Your task to perform on an android device: open the mobile data screen to see how much data has been used Image 0: 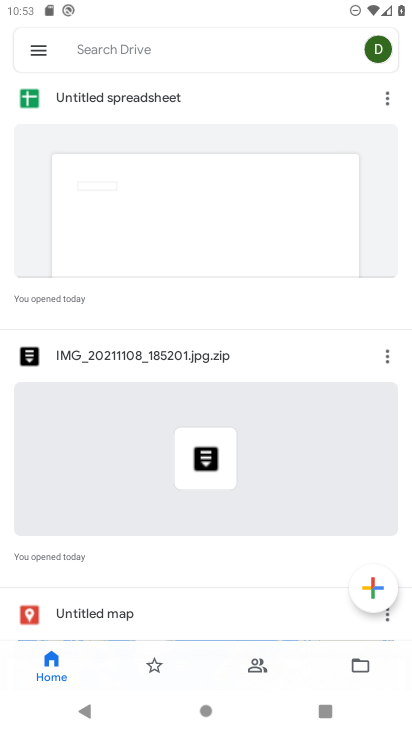
Step 0: press home button
Your task to perform on an android device: open the mobile data screen to see how much data has been used Image 1: 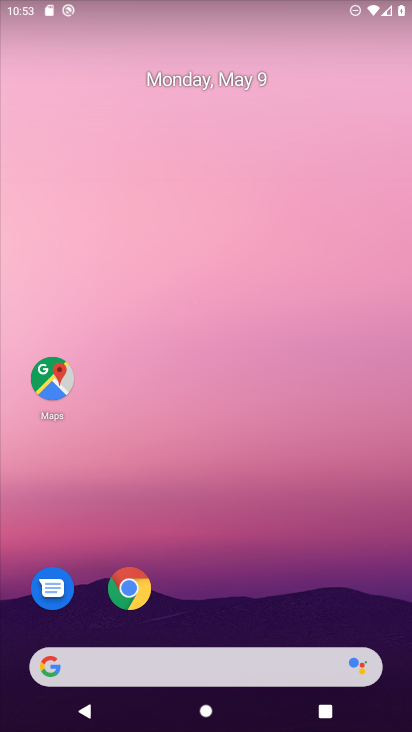
Step 1: drag from (270, 579) to (283, 31)
Your task to perform on an android device: open the mobile data screen to see how much data has been used Image 2: 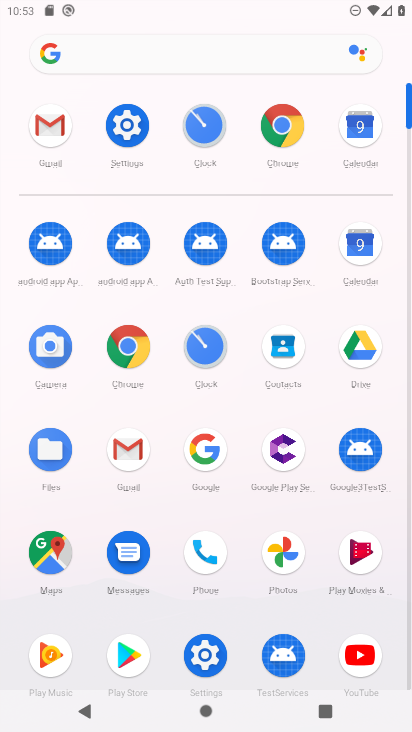
Step 2: click (131, 140)
Your task to perform on an android device: open the mobile data screen to see how much data has been used Image 3: 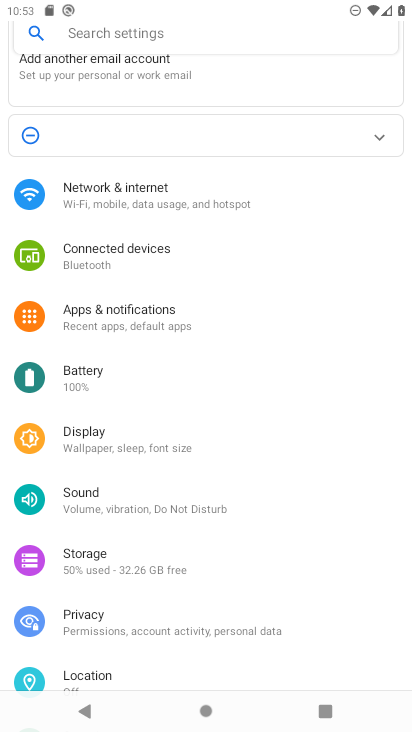
Step 3: click (147, 207)
Your task to perform on an android device: open the mobile data screen to see how much data has been used Image 4: 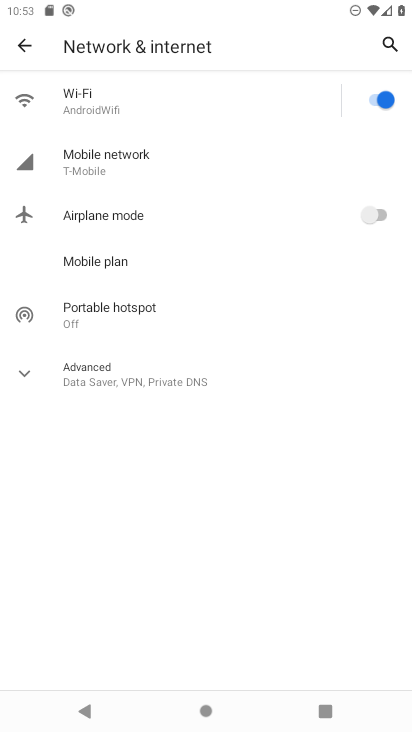
Step 4: click (190, 159)
Your task to perform on an android device: open the mobile data screen to see how much data has been used Image 5: 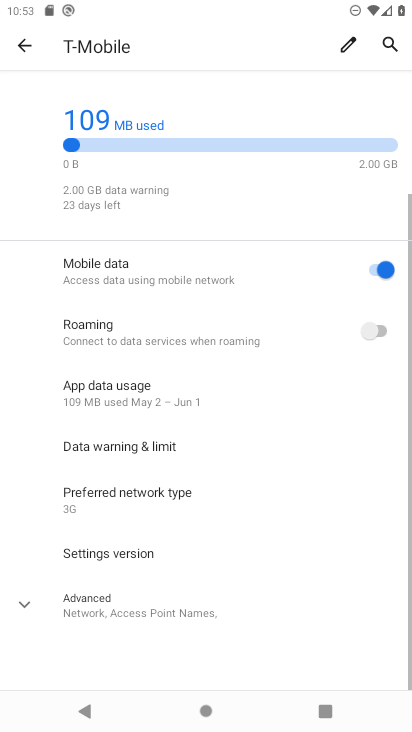
Step 5: task complete